Your task to perform on an android device: Open calendar and show me the third week of next month Image 0: 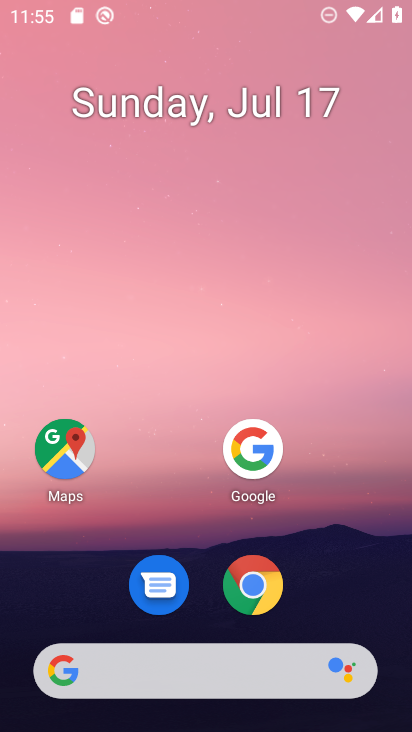
Step 0: press home button
Your task to perform on an android device: Open calendar and show me the third week of next month Image 1: 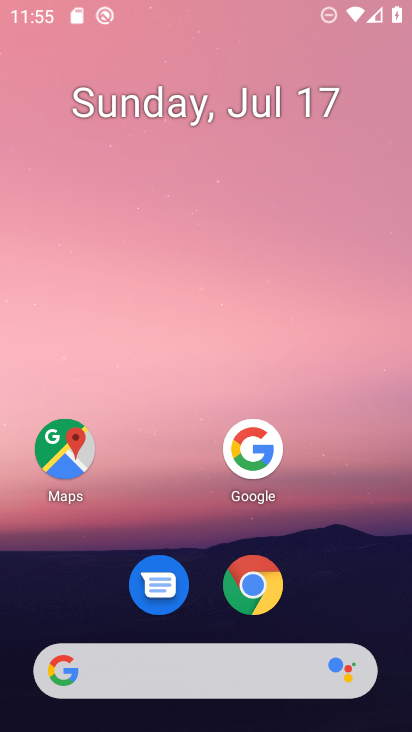
Step 1: click (236, 137)
Your task to perform on an android device: Open calendar and show me the third week of next month Image 2: 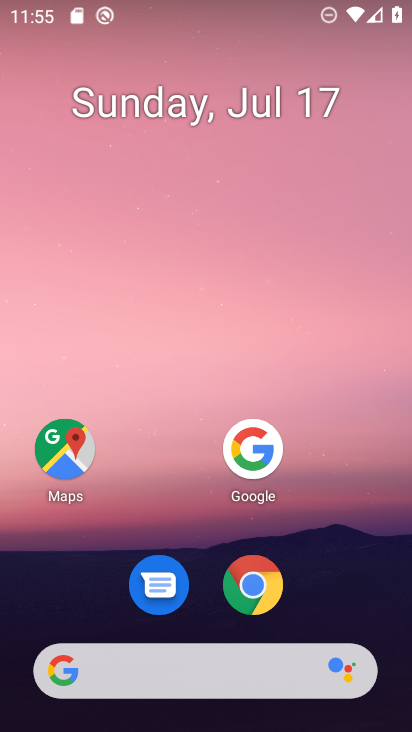
Step 2: drag from (187, 647) to (255, 135)
Your task to perform on an android device: Open calendar and show me the third week of next month Image 3: 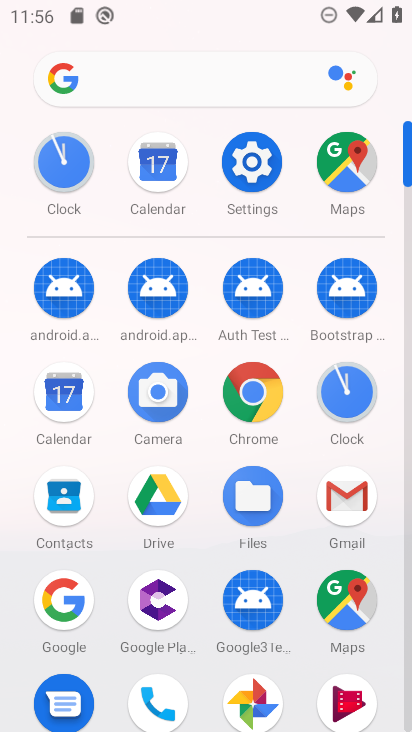
Step 3: click (65, 405)
Your task to perform on an android device: Open calendar and show me the third week of next month Image 4: 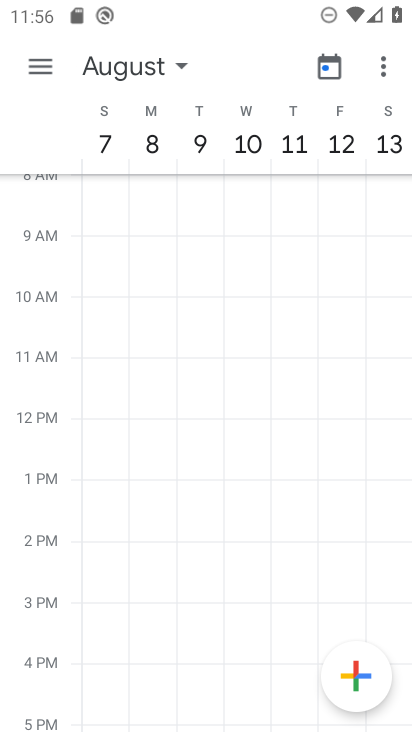
Step 4: click (114, 73)
Your task to perform on an android device: Open calendar and show me the third week of next month Image 5: 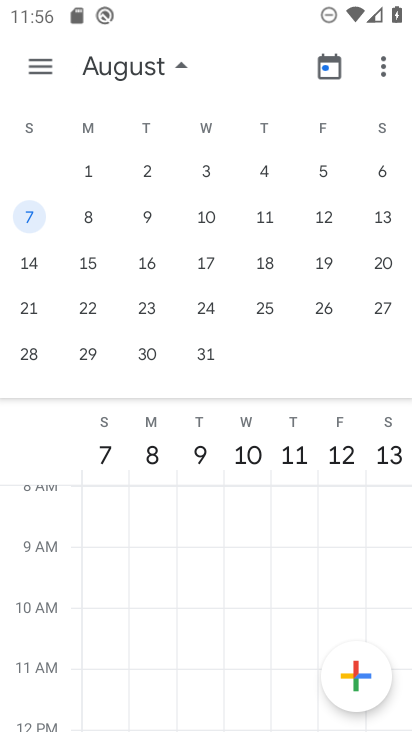
Step 5: click (38, 268)
Your task to perform on an android device: Open calendar and show me the third week of next month Image 6: 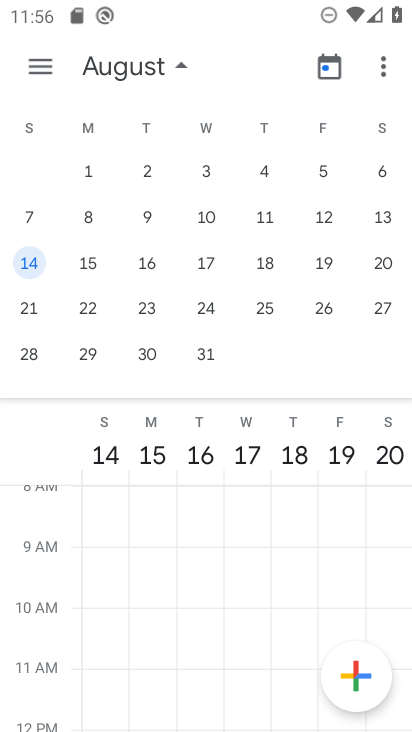
Step 6: task complete